Your task to perform on an android device: set an alarm Image 0: 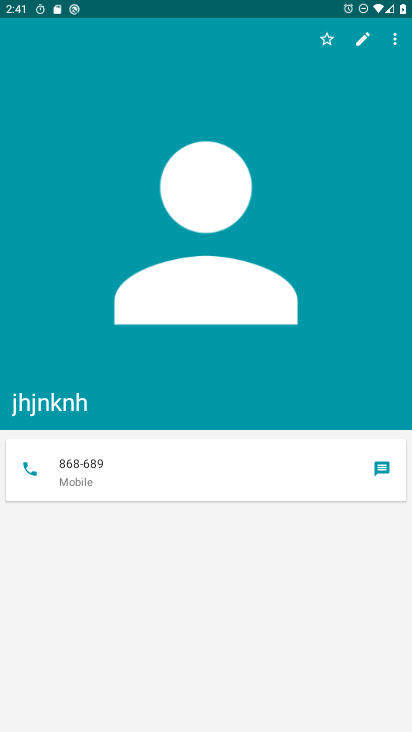
Step 0: drag from (160, 542) to (215, 348)
Your task to perform on an android device: set an alarm Image 1: 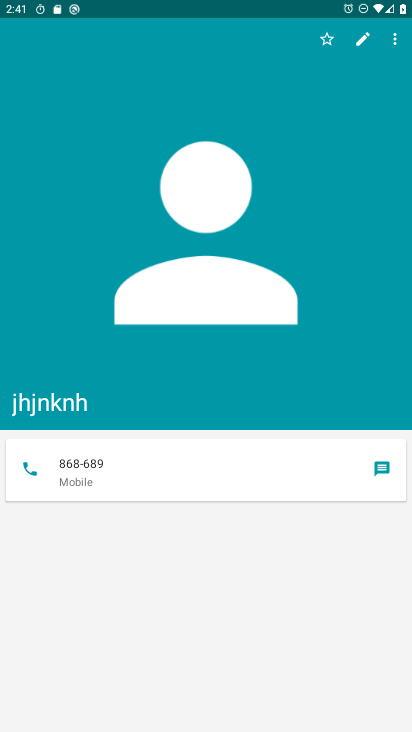
Step 1: press home button
Your task to perform on an android device: set an alarm Image 2: 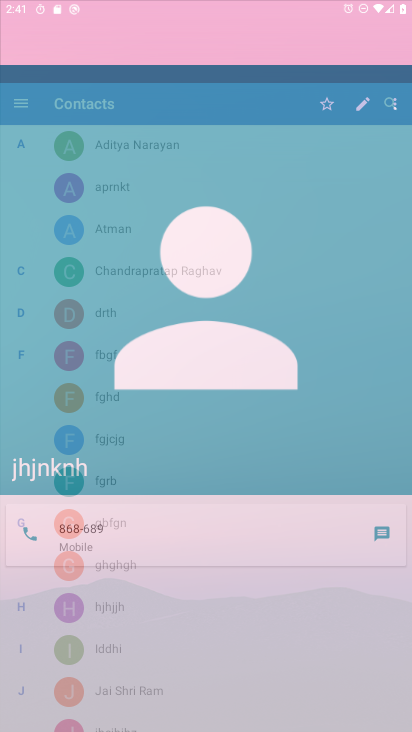
Step 2: drag from (151, 487) to (247, 176)
Your task to perform on an android device: set an alarm Image 3: 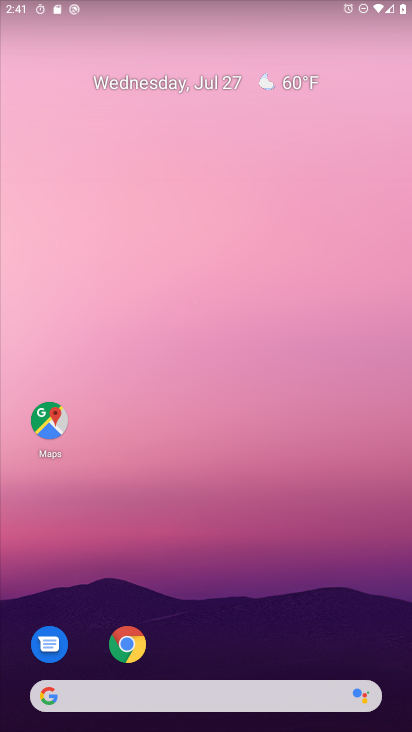
Step 3: drag from (178, 632) to (203, 157)
Your task to perform on an android device: set an alarm Image 4: 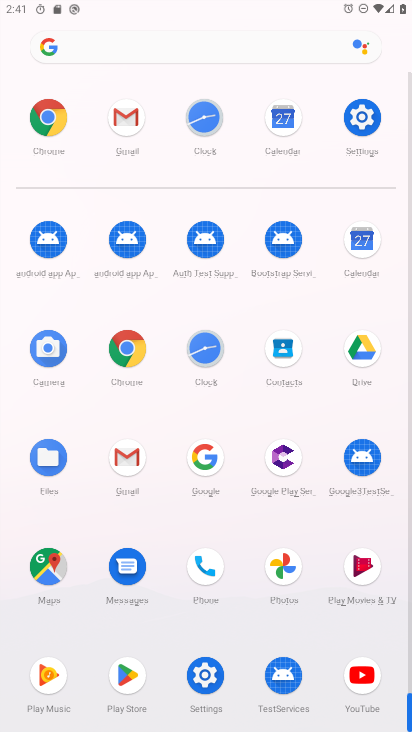
Step 4: click (191, 348)
Your task to perform on an android device: set an alarm Image 5: 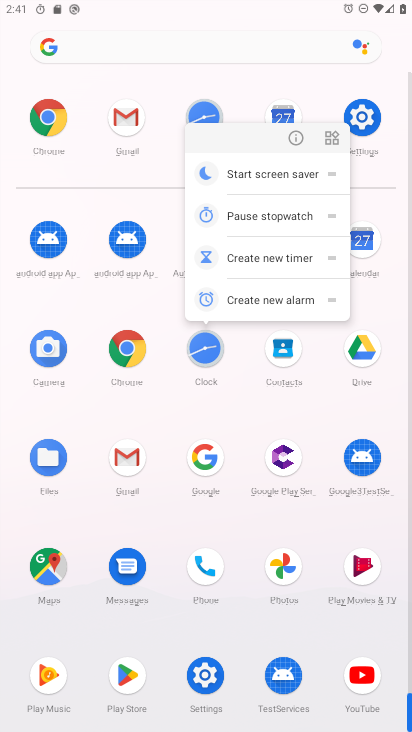
Step 5: click (290, 141)
Your task to perform on an android device: set an alarm Image 6: 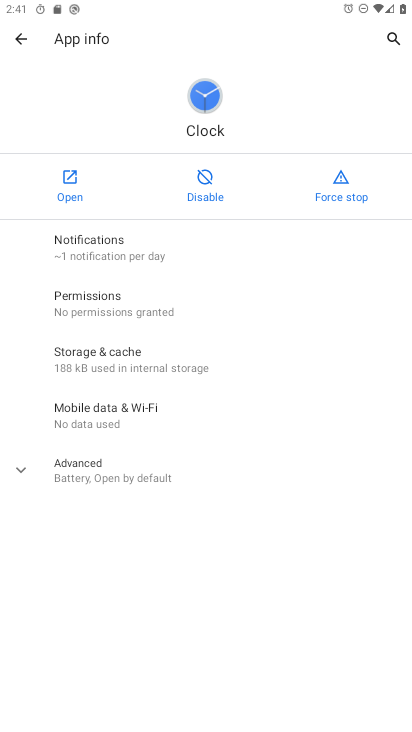
Step 6: click (71, 190)
Your task to perform on an android device: set an alarm Image 7: 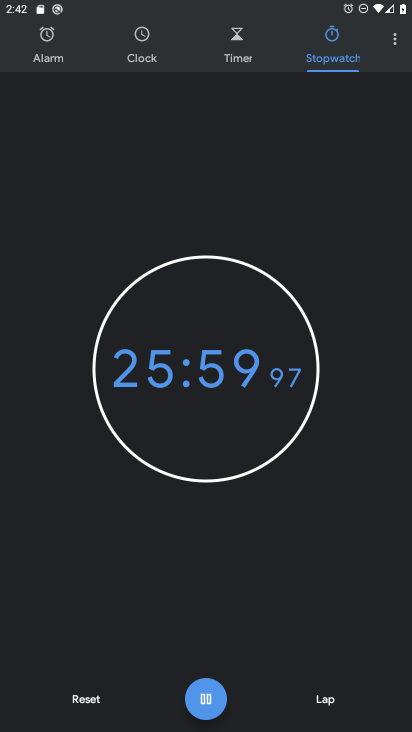
Step 7: click (42, 37)
Your task to perform on an android device: set an alarm Image 8: 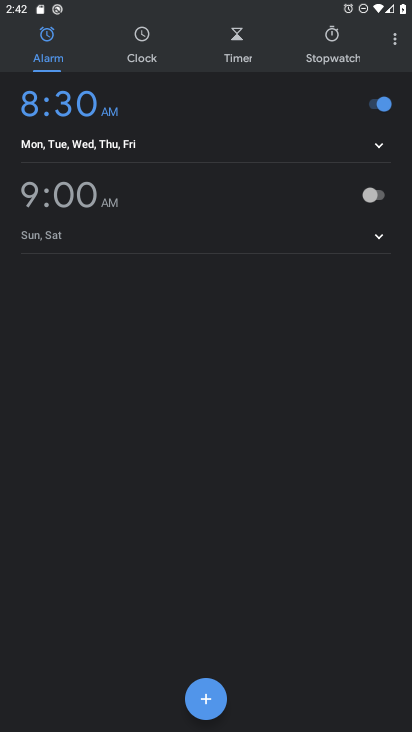
Step 8: click (374, 193)
Your task to perform on an android device: set an alarm Image 9: 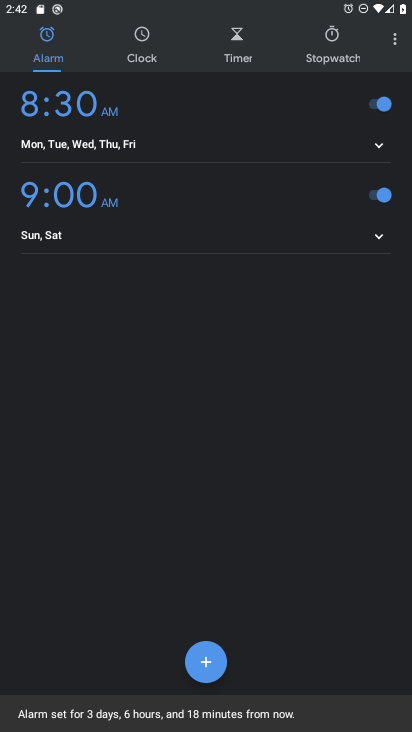
Step 9: task complete